Your task to perform on an android device: make emails show in primary in the gmail app Image 0: 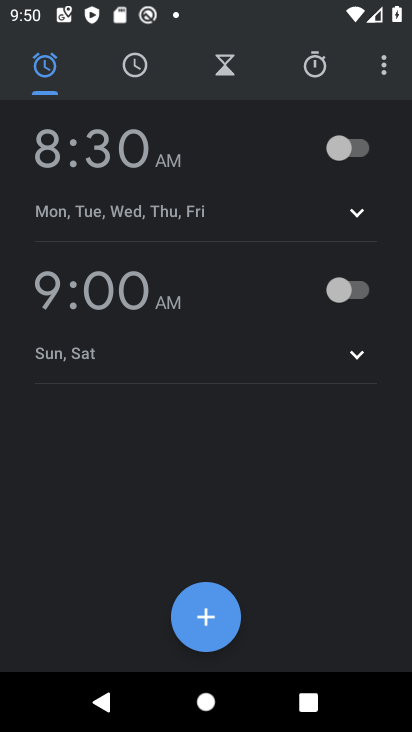
Step 0: press home button
Your task to perform on an android device: make emails show in primary in the gmail app Image 1: 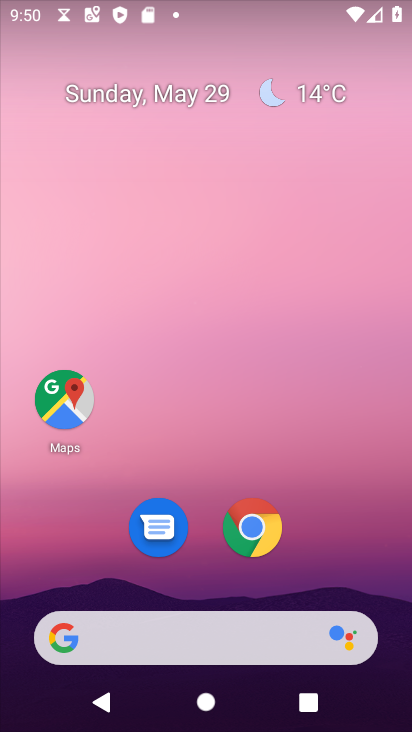
Step 1: drag from (230, 642) to (286, 139)
Your task to perform on an android device: make emails show in primary in the gmail app Image 2: 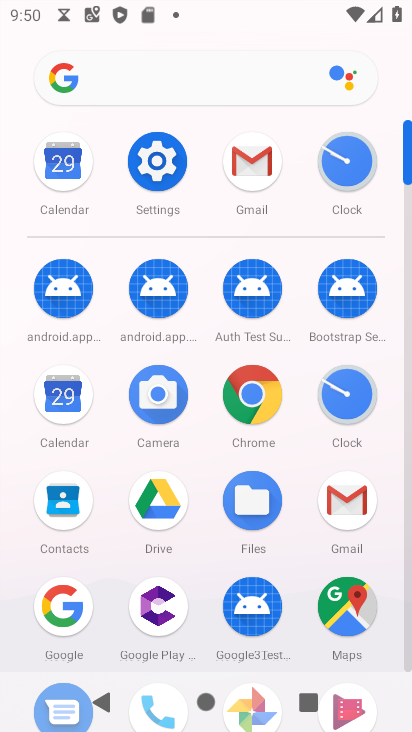
Step 2: click (249, 171)
Your task to perform on an android device: make emails show in primary in the gmail app Image 3: 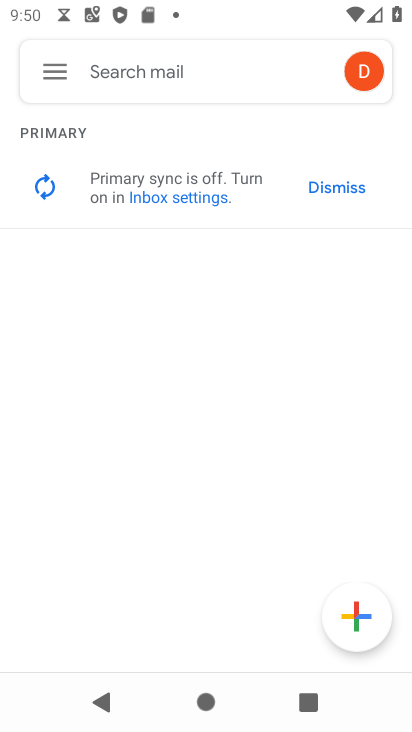
Step 3: click (56, 71)
Your task to perform on an android device: make emails show in primary in the gmail app Image 4: 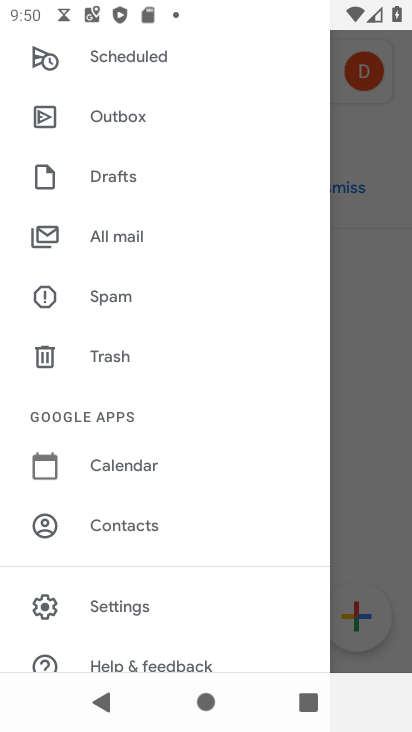
Step 4: click (127, 609)
Your task to perform on an android device: make emails show in primary in the gmail app Image 5: 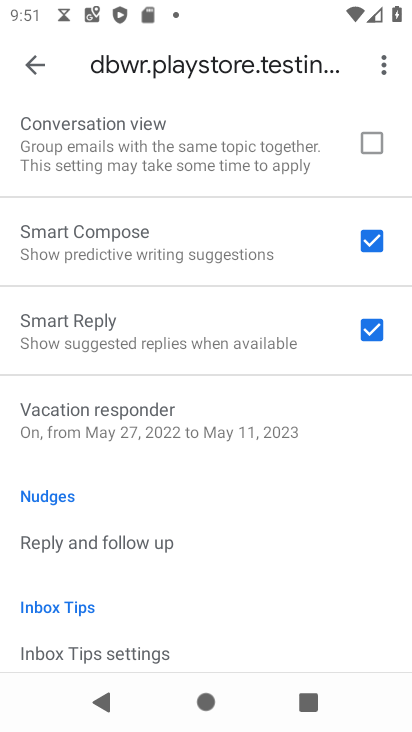
Step 5: drag from (280, 114) to (284, 626)
Your task to perform on an android device: make emails show in primary in the gmail app Image 6: 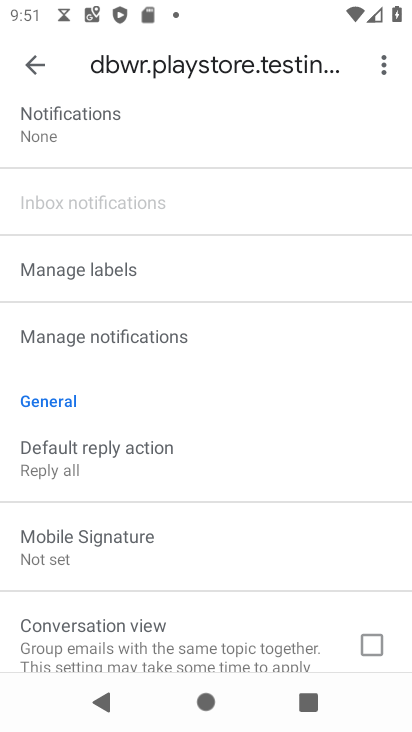
Step 6: drag from (282, 208) to (291, 628)
Your task to perform on an android device: make emails show in primary in the gmail app Image 7: 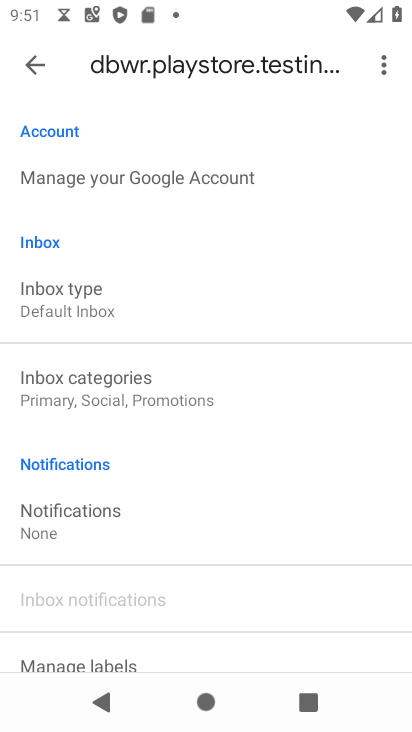
Step 7: drag from (211, 208) to (250, 540)
Your task to perform on an android device: make emails show in primary in the gmail app Image 8: 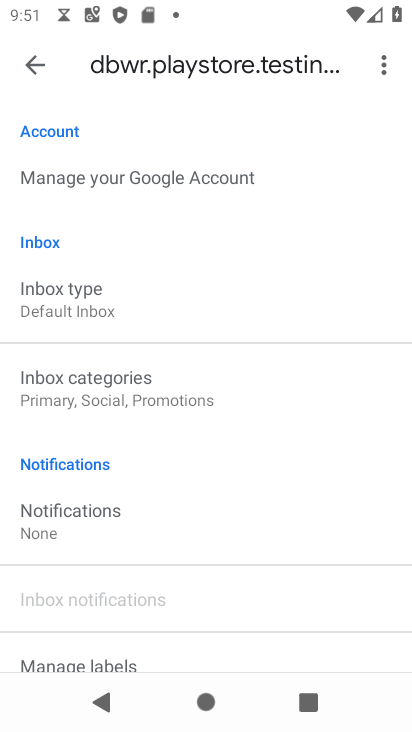
Step 8: click (112, 386)
Your task to perform on an android device: make emails show in primary in the gmail app Image 9: 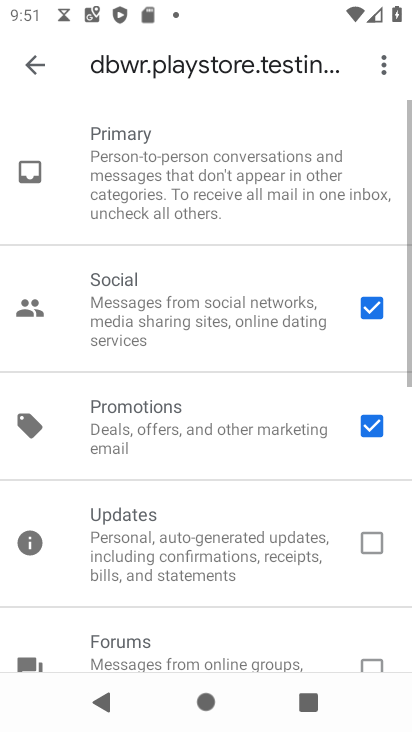
Step 9: click (373, 300)
Your task to perform on an android device: make emails show in primary in the gmail app Image 10: 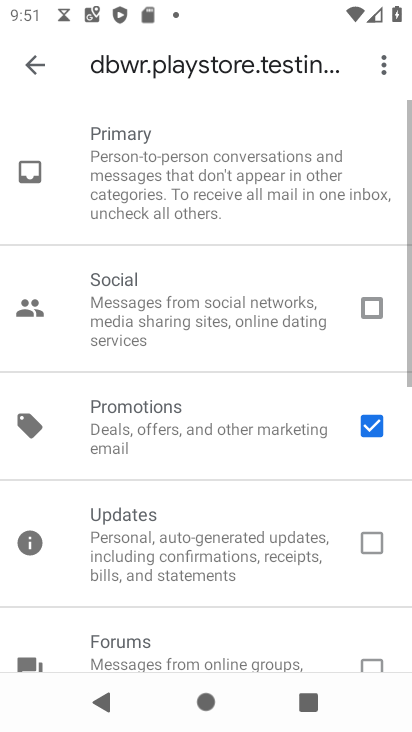
Step 10: click (369, 421)
Your task to perform on an android device: make emails show in primary in the gmail app Image 11: 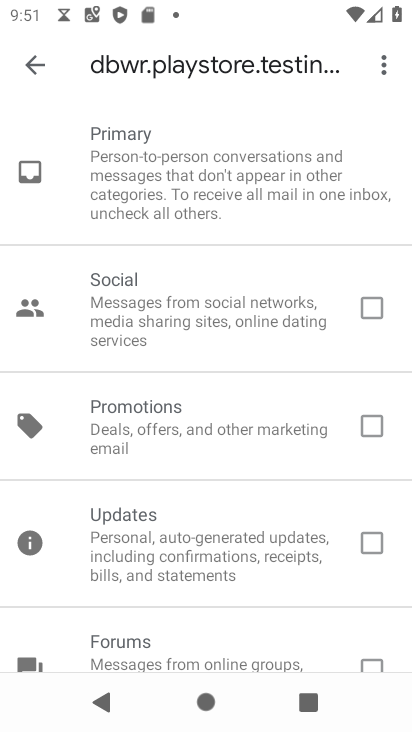
Step 11: click (38, 60)
Your task to perform on an android device: make emails show in primary in the gmail app Image 12: 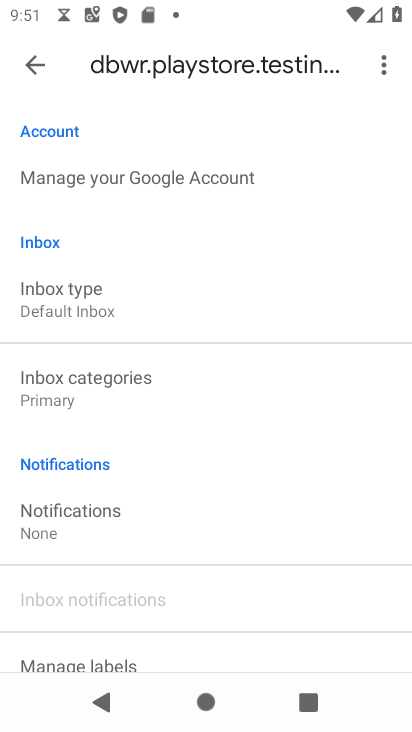
Step 12: task complete